Your task to perform on an android device: Go to Yahoo.com Image 0: 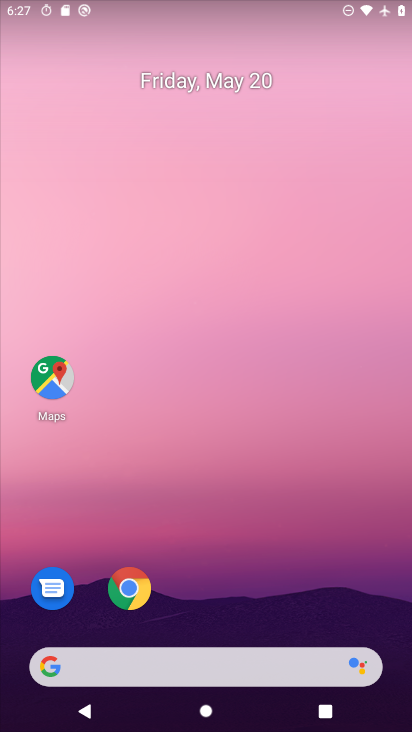
Step 0: click (124, 589)
Your task to perform on an android device: Go to Yahoo.com Image 1: 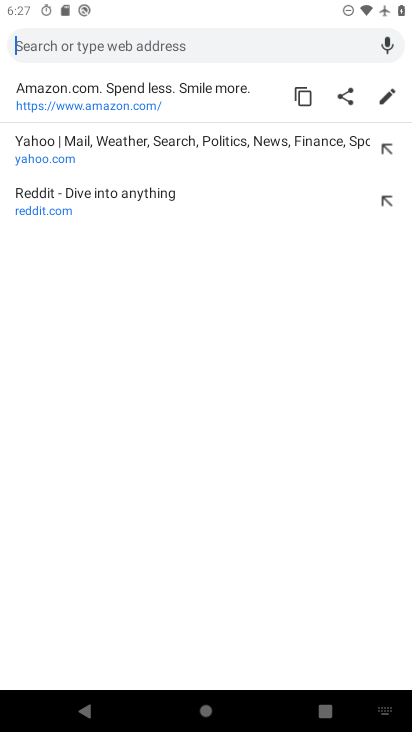
Step 1: click (89, 159)
Your task to perform on an android device: Go to Yahoo.com Image 2: 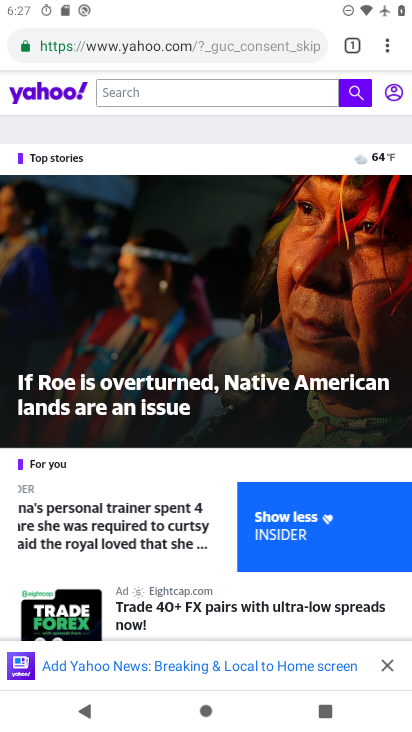
Step 2: task complete